Your task to perform on an android device: What's on my calendar today? Image 0: 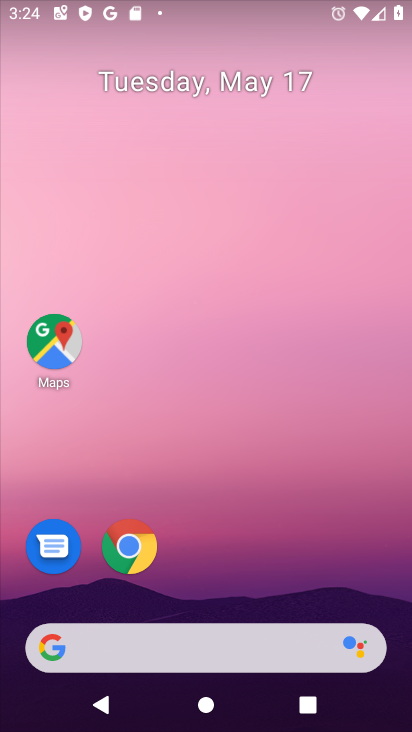
Step 0: drag from (377, 449) to (363, 391)
Your task to perform on an android device: What's on my calendar today? Image 1: 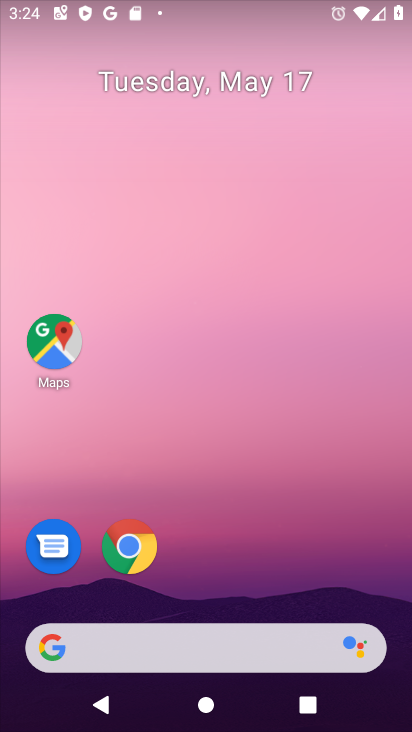
Step 1: drag from (399, 679) to (343, 382)
Your task to perform on an android device: What's on my calendar today? Image 2: 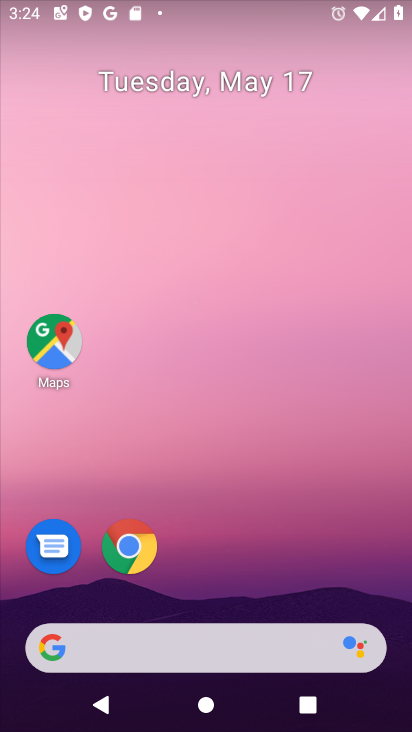
Step 2: drag from (398, 566) to (388, 327)
Your task to perform on an android device: What's on my calendar today? Image 3: 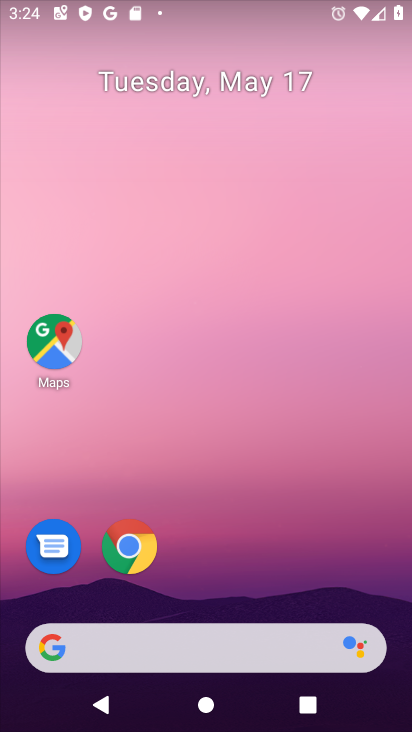
Step 3: drag from (400, 659) to (369, 422)
Your task to perform on an android device: What's on my calendar today? Image 4: 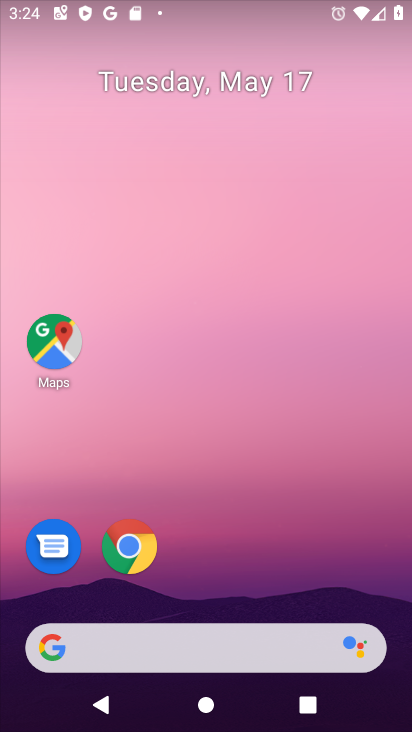
Step 4: drag from (395, 645) to (362, 217)
Your task to perform on an android device: What's on my calendar today? Image 5: 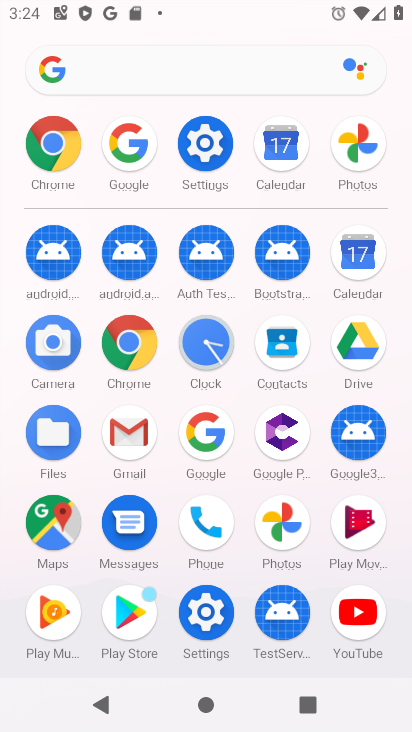
Step 5: click (351, 258)
Your task to perform on an android device: What's on my calendar today? Image 6: 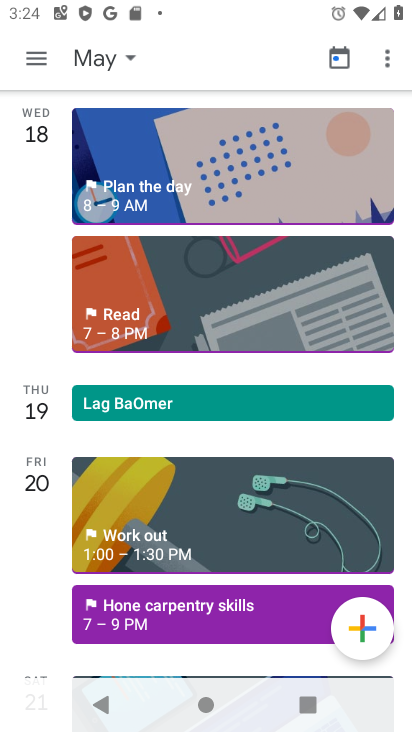
Step 6: click (124, 53)
Your task to perform on an android device: What's on my calendar today? Image 7: 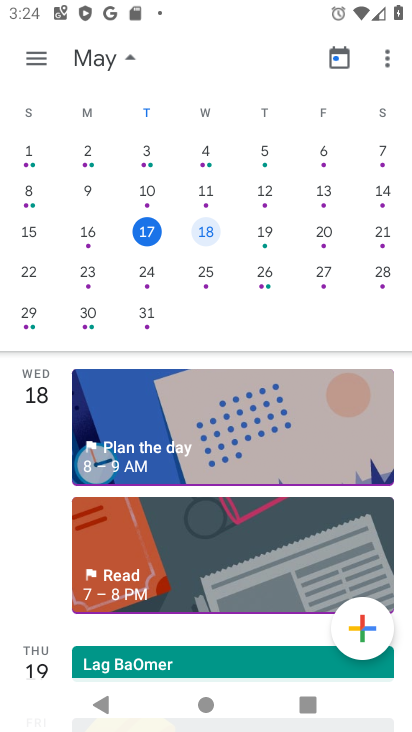
Step 7: click (148, 226)
Your task to perform on an android device: What's on my calendar today? Image 8: 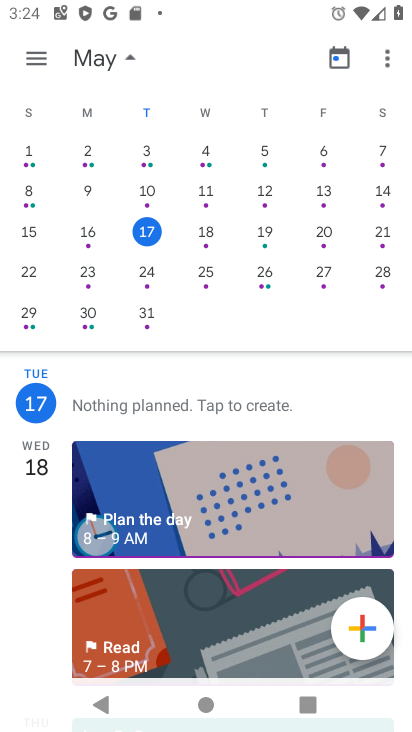
Step 8: click (148, 228)
Your task to perform on an android device: What's on my calendar today? Image 9: 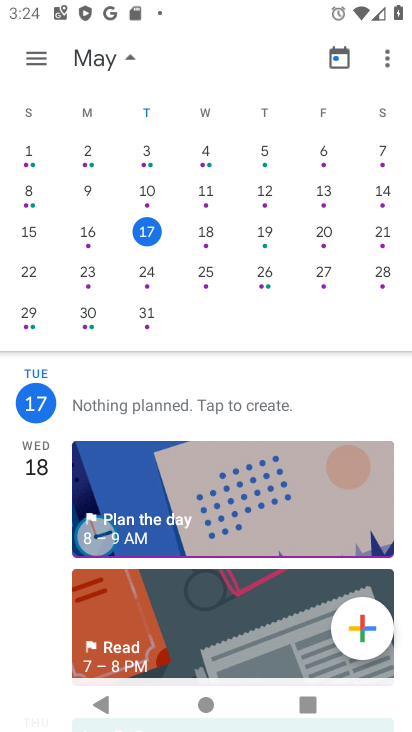
Step 9: task complete